Your task to perform on an android device: turn off picture-in-picture Image 0: 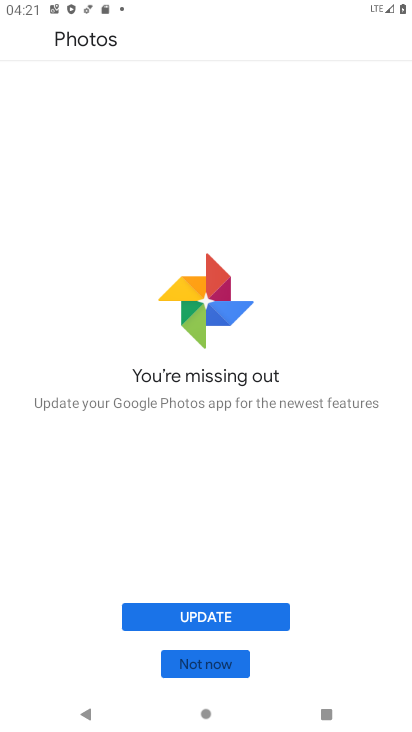
Step 0: press home button
Your task to perform on an android device: turn off picture-in-picture Image 1: 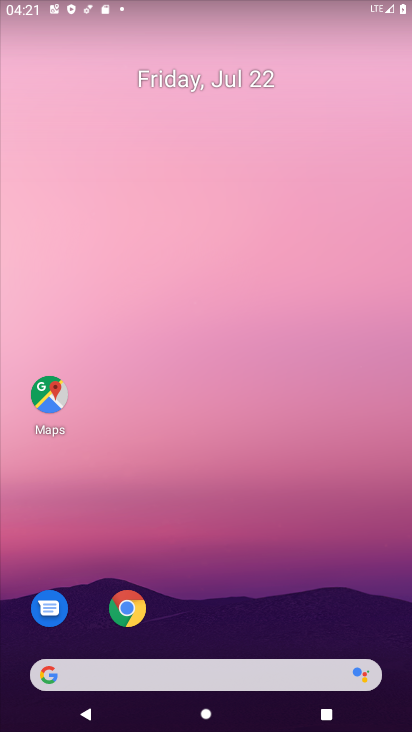
Step 1: drag from (228, 711) to (234, 154)
Your task to perform on an android device: turn off picture-in-picture Image 2: 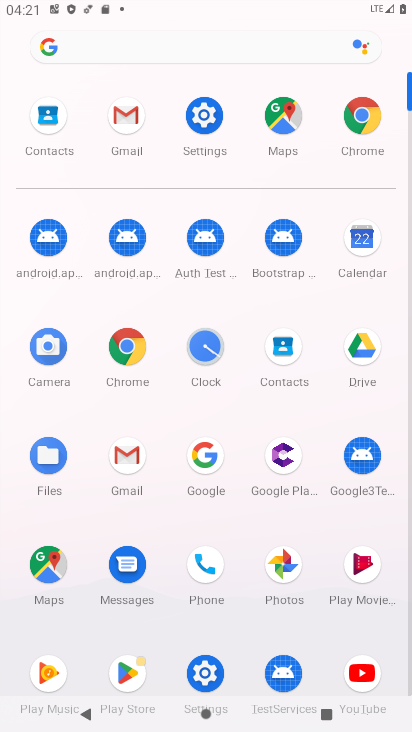
Step 2: click (207, 117)
Your task to perform on an android device: turn off picture-in-picture Image 3: 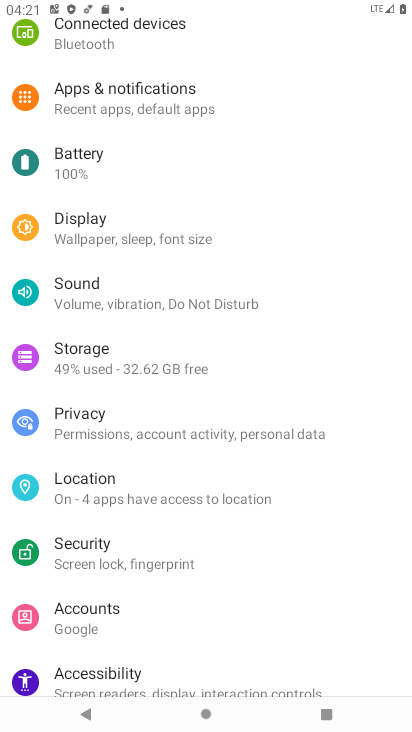
Step 3: click (114, 102)
Your task to perform on an android device: turn off picture-in-picture Image 4: 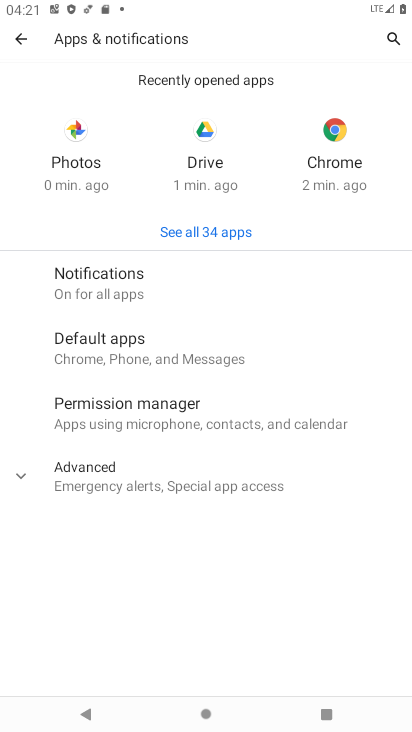
Step 4: click (118, 474)
Your task to perform on an android device: turn off picture-in-picture Image 5: 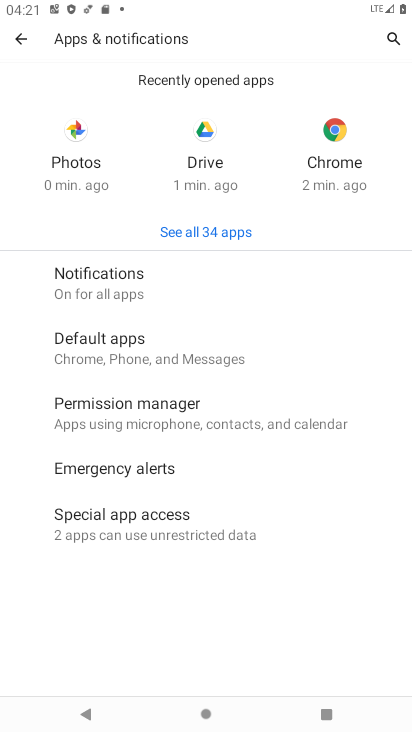
Step 5: click (90, 530)
Your task to perform on an android device: turn off picture-in-picture Image 6: 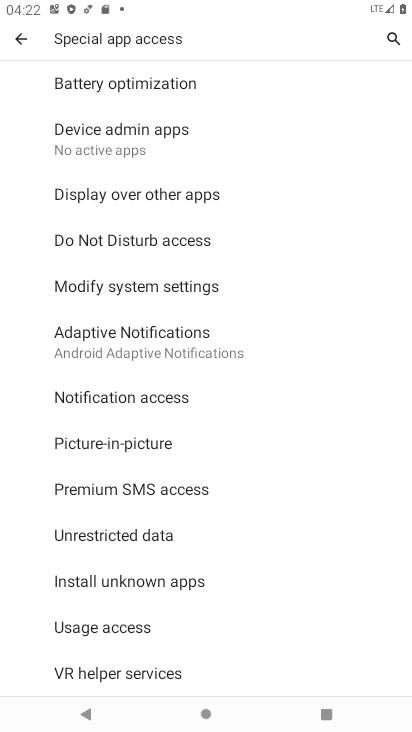
Step 6: click (138, 441)
Your task to perform on an android device: turn off picture-in-picture Image 7: 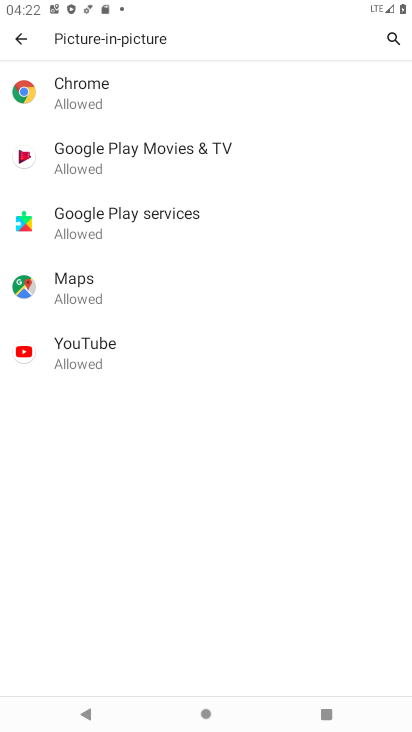
Step 7: click (76, 352)
Your task to perform on an android device: turn off picture-in-picture Image 8: 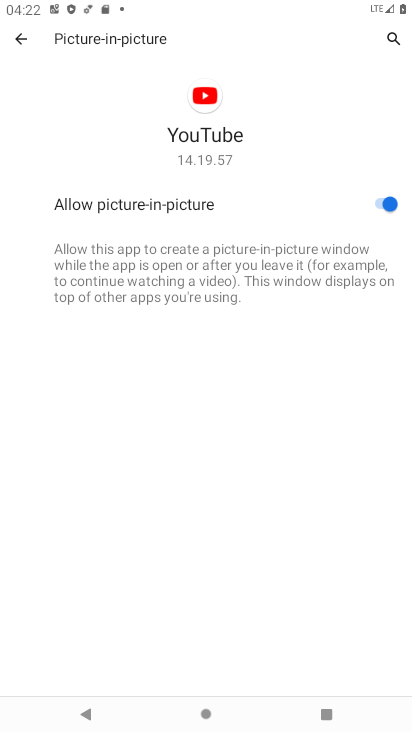
Step 8: click (388, 195)
Your task to perform on an android device: turn off picture-in-picture Image 9: 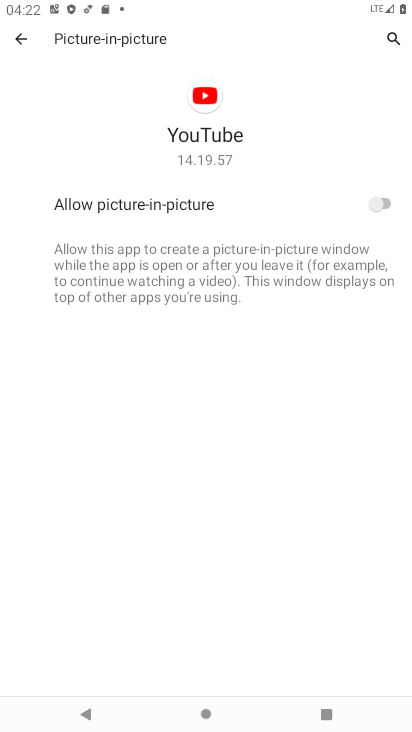
Step 9: task complete